Your task to perform on an android device: Search for a 3D printer on aliexpress. Image 0: 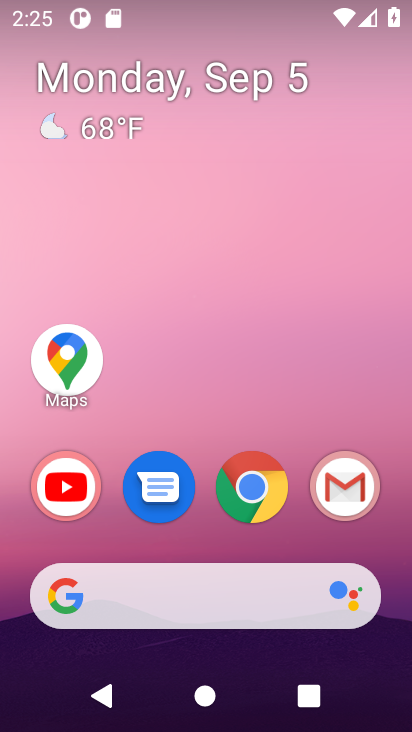
Step 0: click (237, 470)
Your task to perform on an android device: Search for a 3D printer on aliexpress. Image 1: 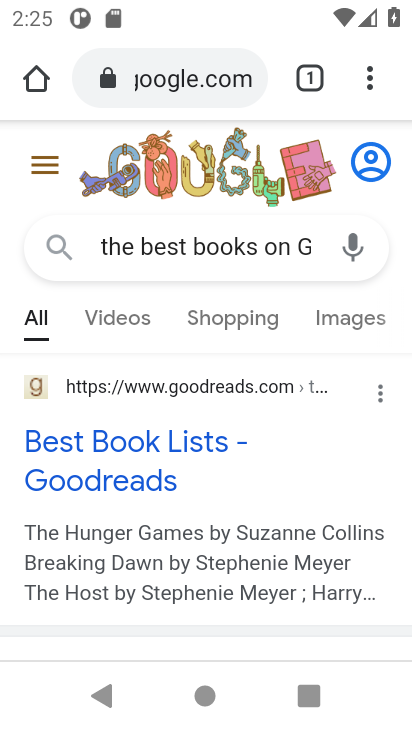
Step 1: click (173, 73)
Your task to perform on an android device: Search for a 3D printer on aliexpress. Image 2: 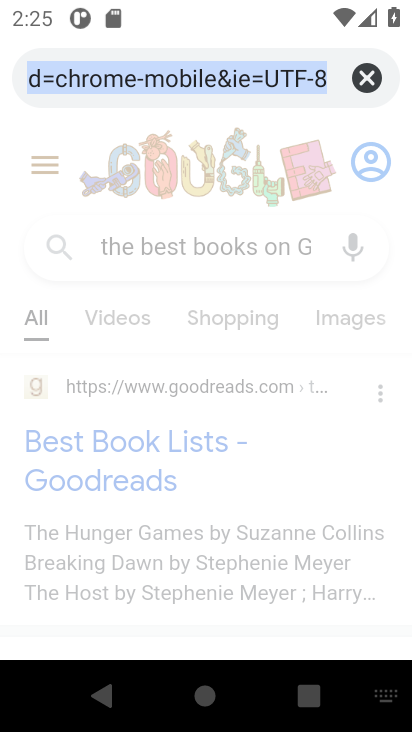
Step 2: click (373, 70)
Your task to perform on an android device: Search for a 3D printer on aliexpress. Image 3: 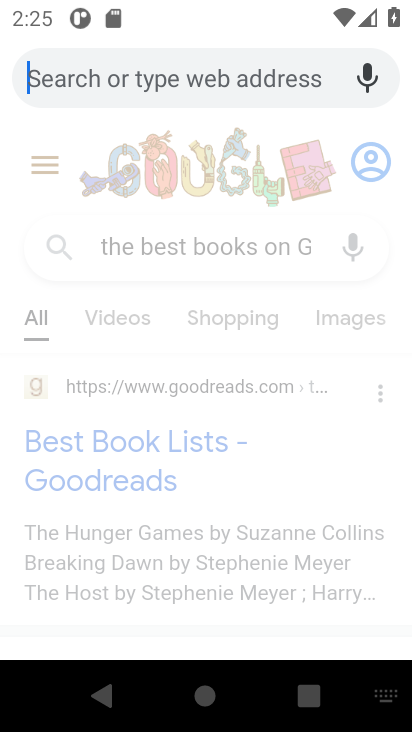
Step 3: type "3D printer on aliexpress."
Your task to perform on an android device: Search for a 3D printer on aliexpress. Image 4: 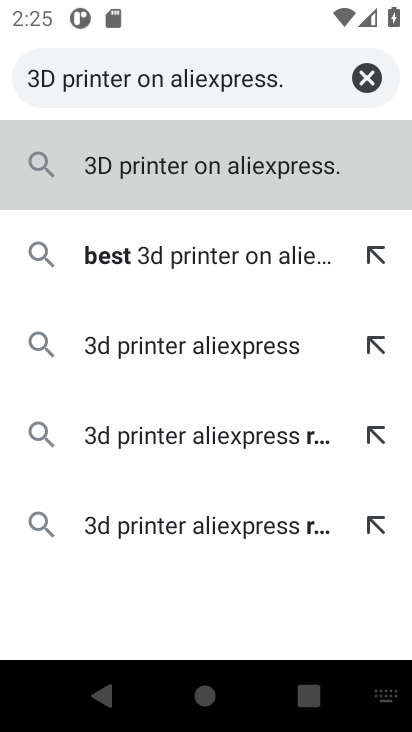
Step 4: click (224, 174)
Your task to perform on an android device: Search for a 3D printer on aliexpress. Image 5: 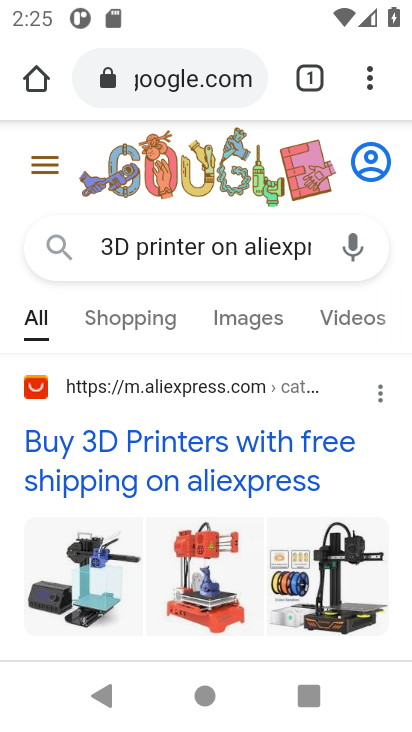
Step 5: task complete